Your task to perform on an android device: visit the assistant section in the google photos Image 0: 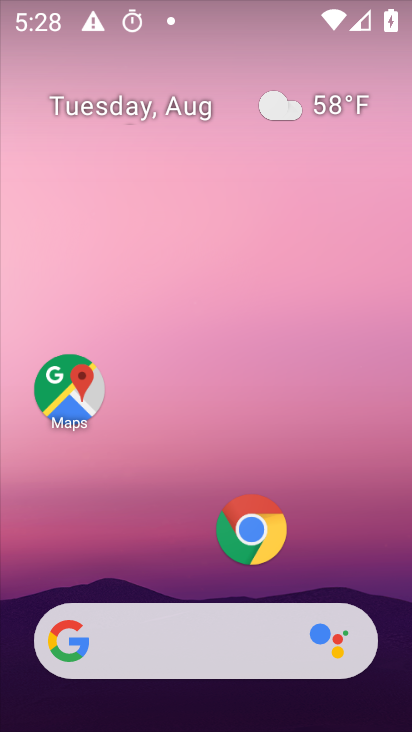
Step 0: drag from (166, 555) to (202, 182)
Your task to perform on an android device: visit the assistant section in the google photos Image 1: 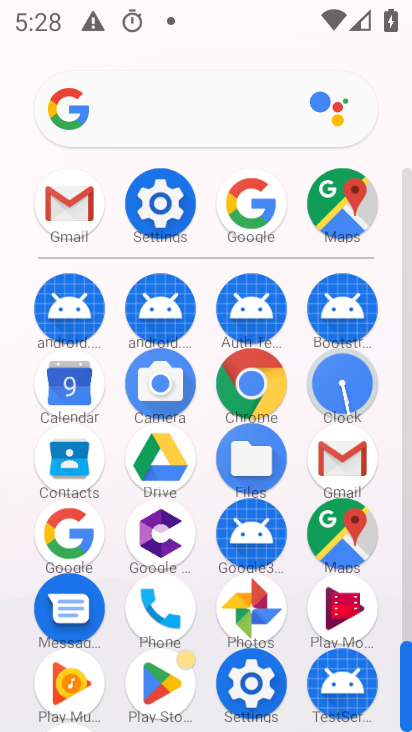
Step 1: click (231, 586)
Your task to perform on an android device: visit the assistant section in the google photos Image 2: 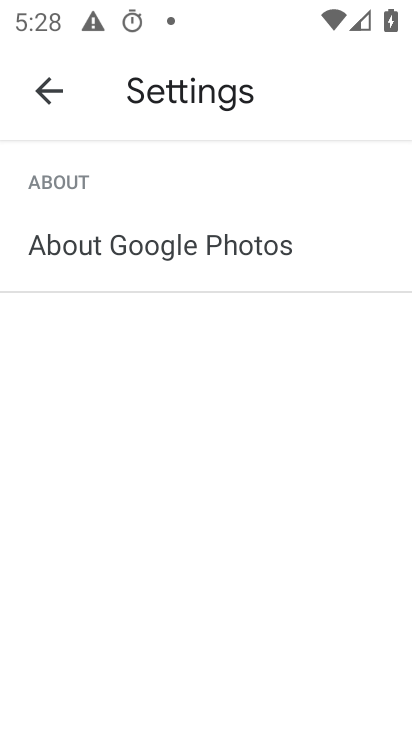
Step 2: click (37, 78)
Your task to perform on an android device: visit the assistant section in the google photos Image 3: 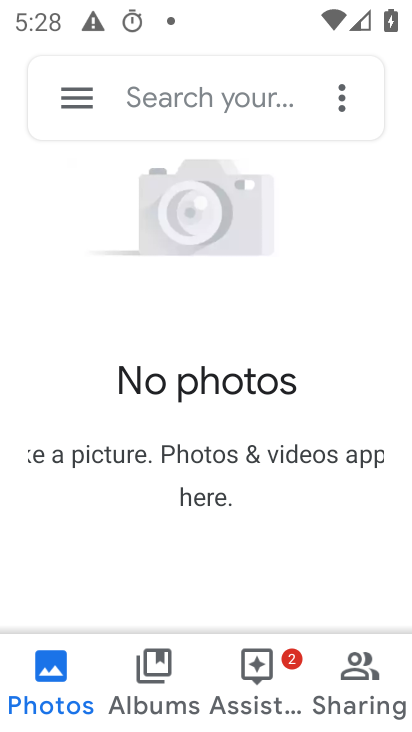
Step 3: click (236, 660)
Your task to perform on an android device: visit the assistant section in the google photos Image 4: 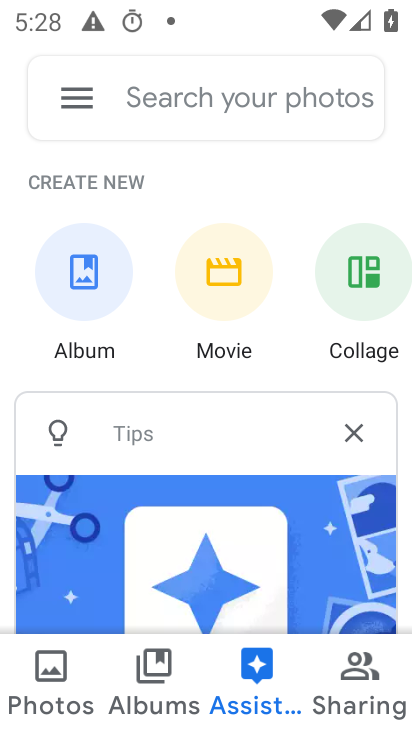
Step 4: task complete